Your task to perform on an android device: Toggle the flashlight Image 0: 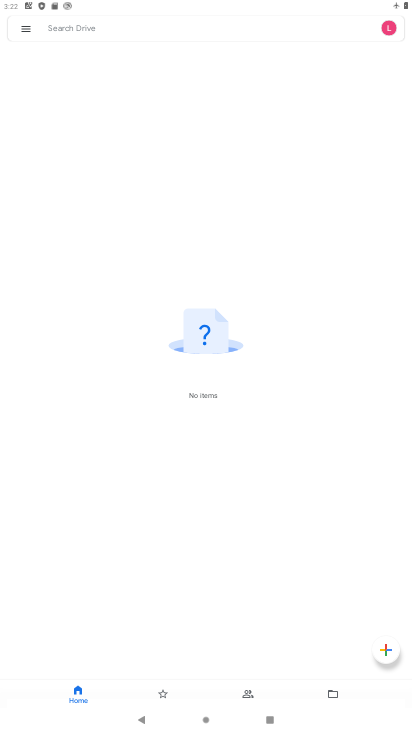
Step 0: press home button
Your task to perform on an android device: Toggle the flashlight Image 1: 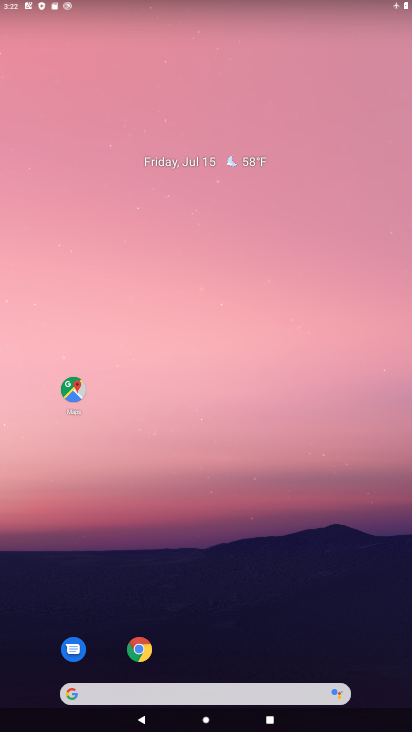
Step 1: drag from (242, 690) to (235, 162)
Your task to perform on an android device: Toggle the flashlight Image 2: 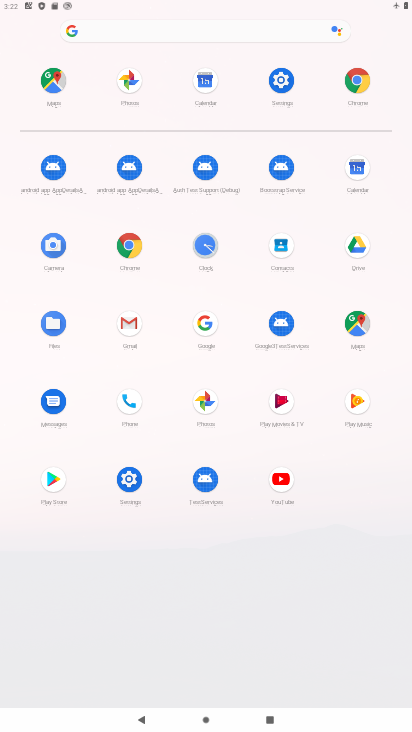
Step 2: click (281, 80)
Your task to perform on an android device: Toggle the flashlight Image 3: 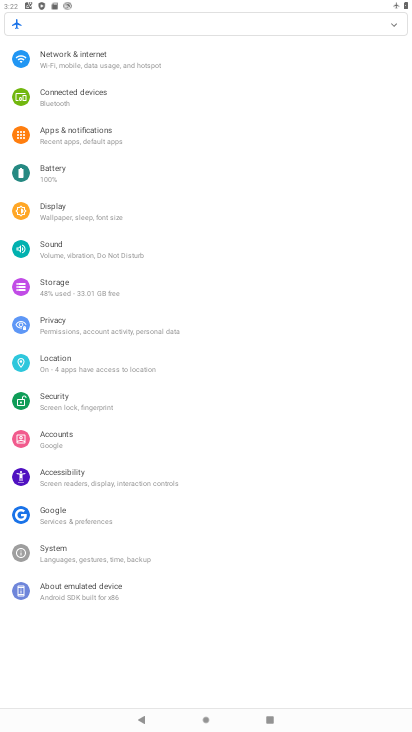
Step 3: task complete